Your task to perform on an android device: Open Google Maps Image 0: 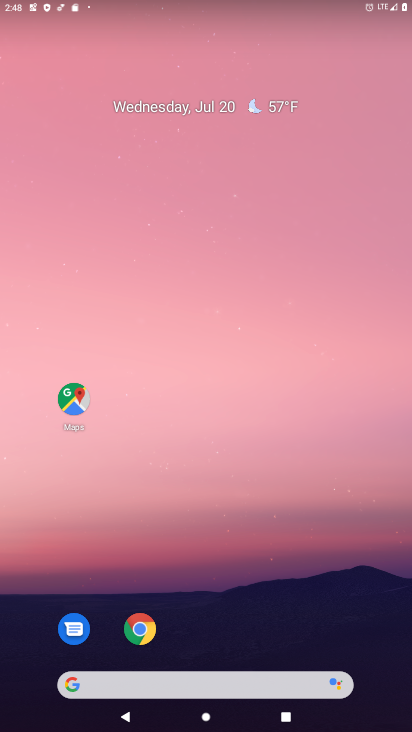
Step 0: click (70, 398)
Your task to perform on an android device: Open Google Maps Image 1: 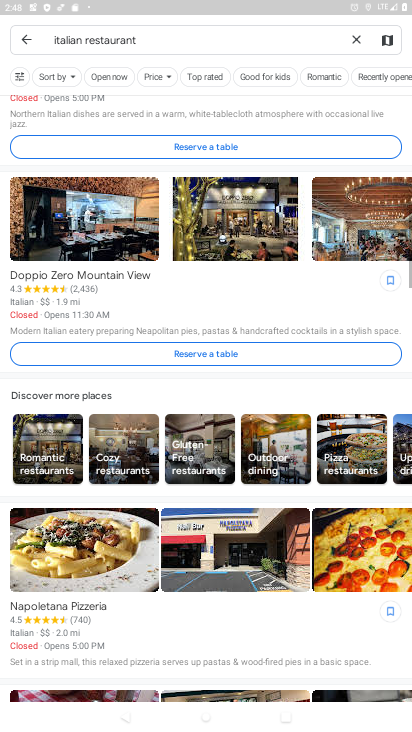
Step 1: click (354, 36)
Your task to perform on an android device: Open Google Maps Image 2: 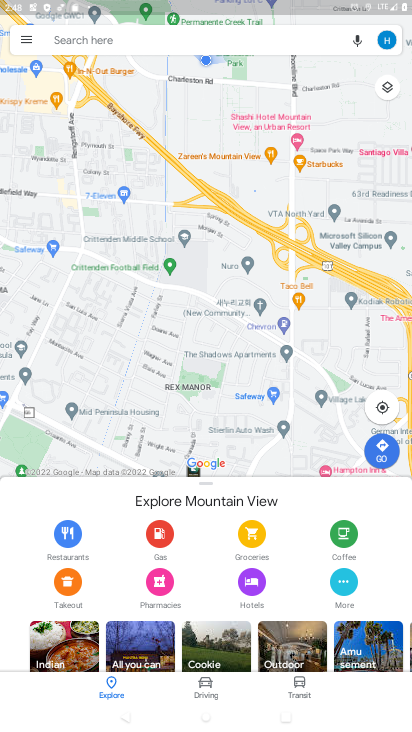
Step 2: task complete